Your task to perform on an android device: open chrome and create a bookmark for the current page Image 0: 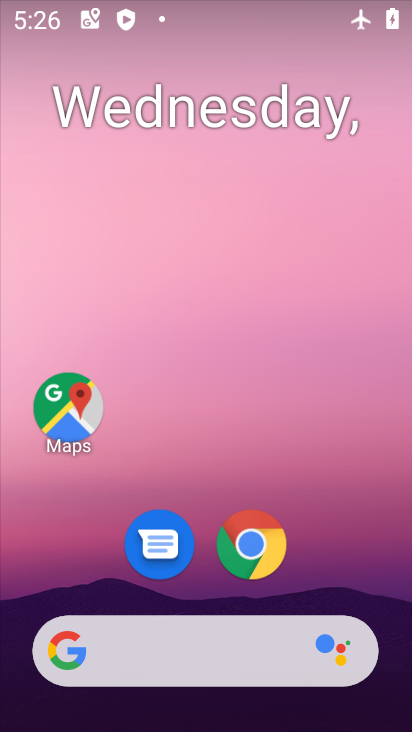
Step 0: click (241, 541)
Your task to perform on an android device: open chrome and create a bookmark for the current page Image 1: 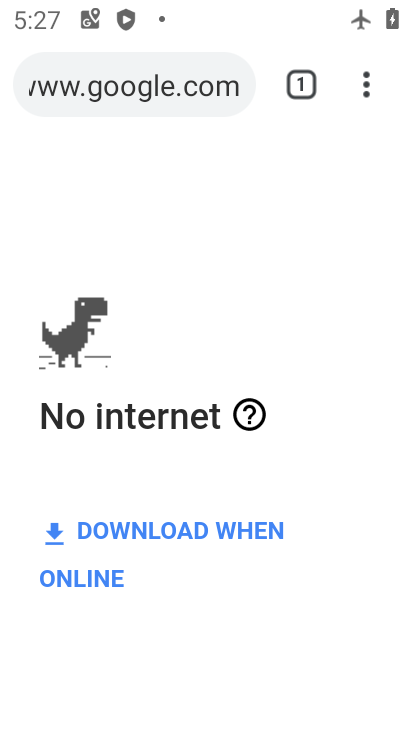
Step 1: task complete